Your task to perform on an android device: install app "Move to iOS" Image 0: 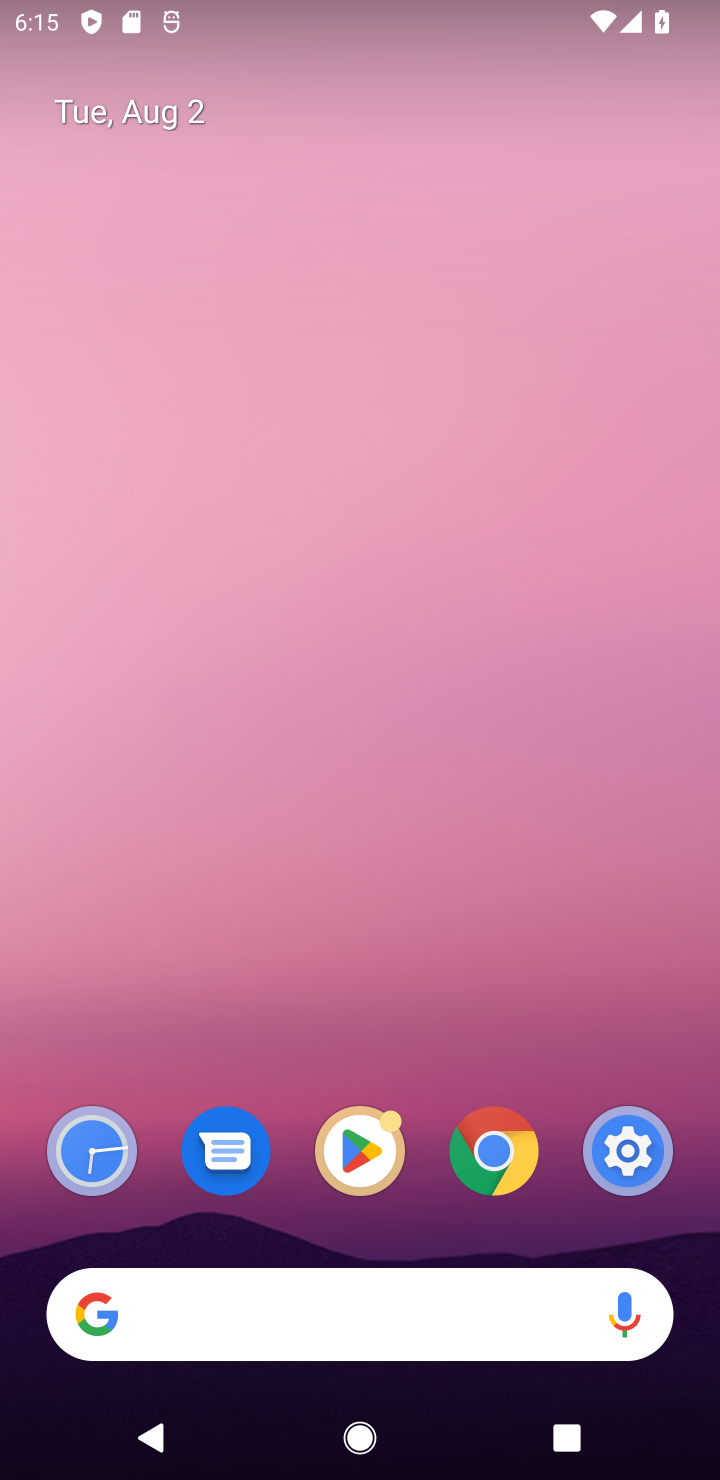
Step 0: click (320, 1284)
Your task to perform on an android device: install app "Move to iOS" Image 1: 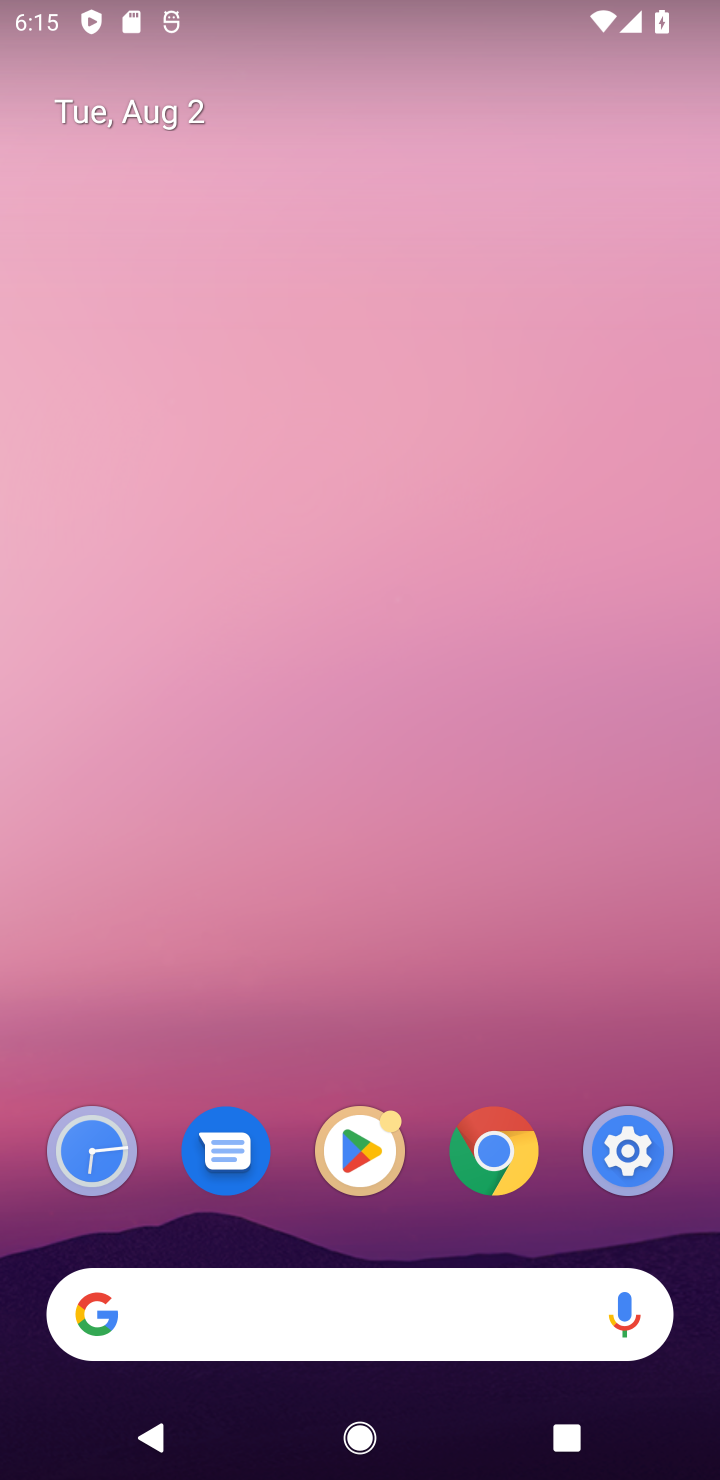
Step 1: click (343, 1145)
Your task to perform on an android device: install app "Move to iOS" Image 2: 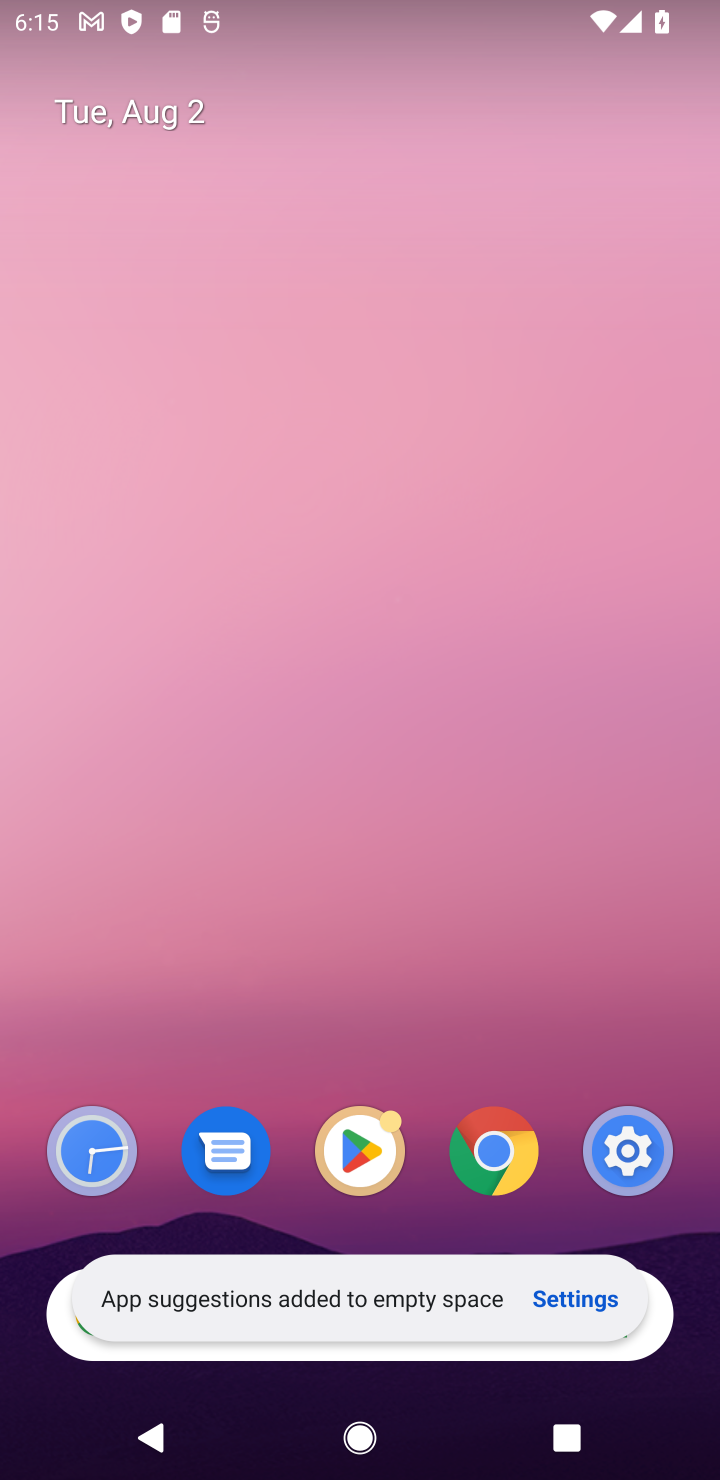
Step 2: click (385, 1156)
Your task to perform on an android device: install app "Move to iOS" Image 3: 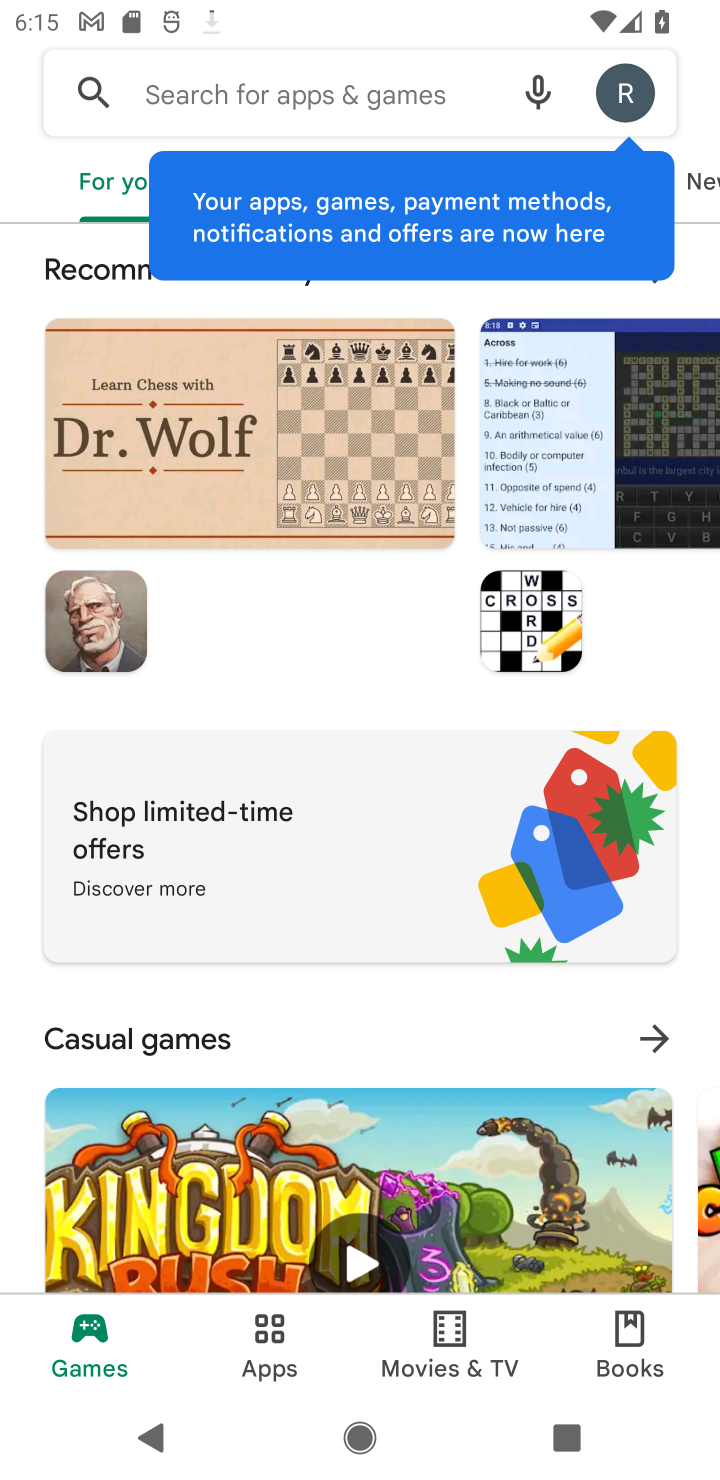
Step 3: click (299, 112)
Your task to perform on an android device: install app "Move to iOS" Image 4: 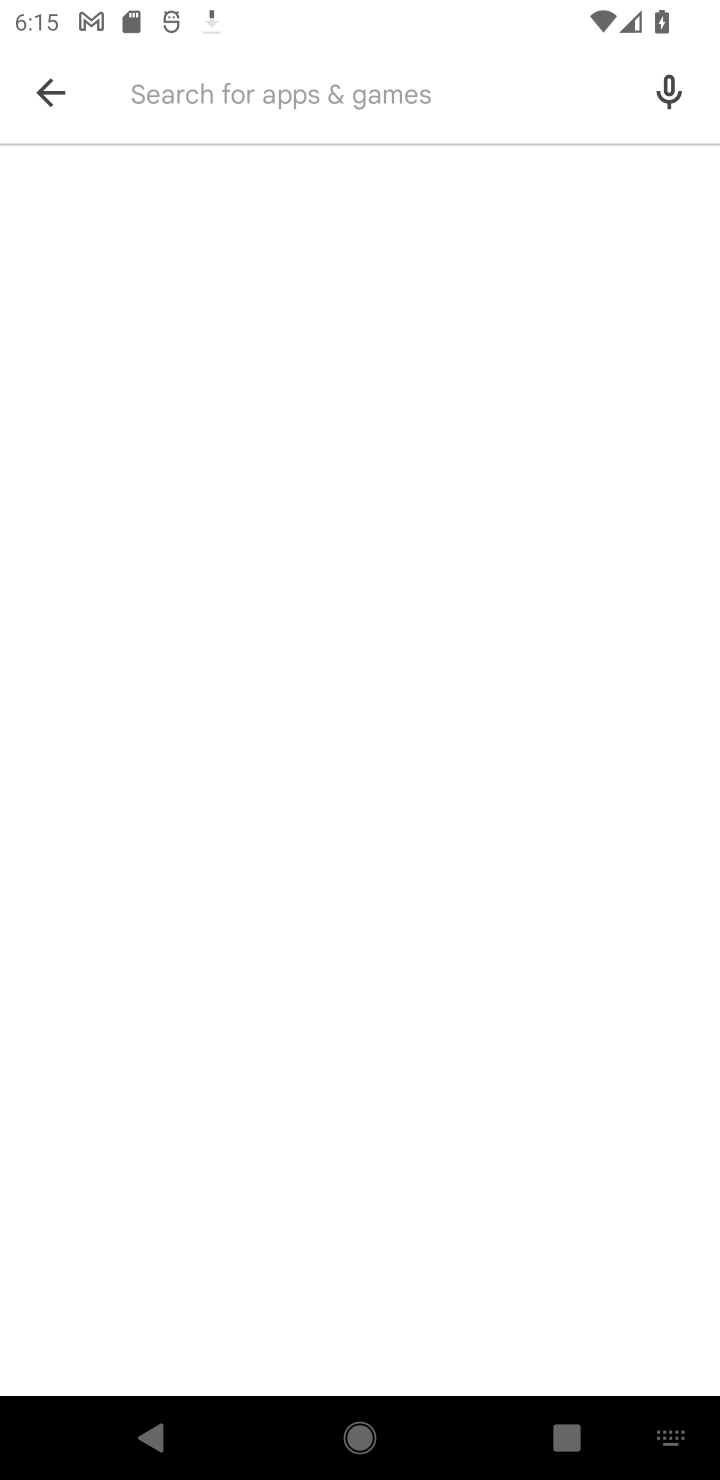
Step 4: type "Move to iOS"
Your task to perform on an android device: install app "Move to iOS" Image 5: 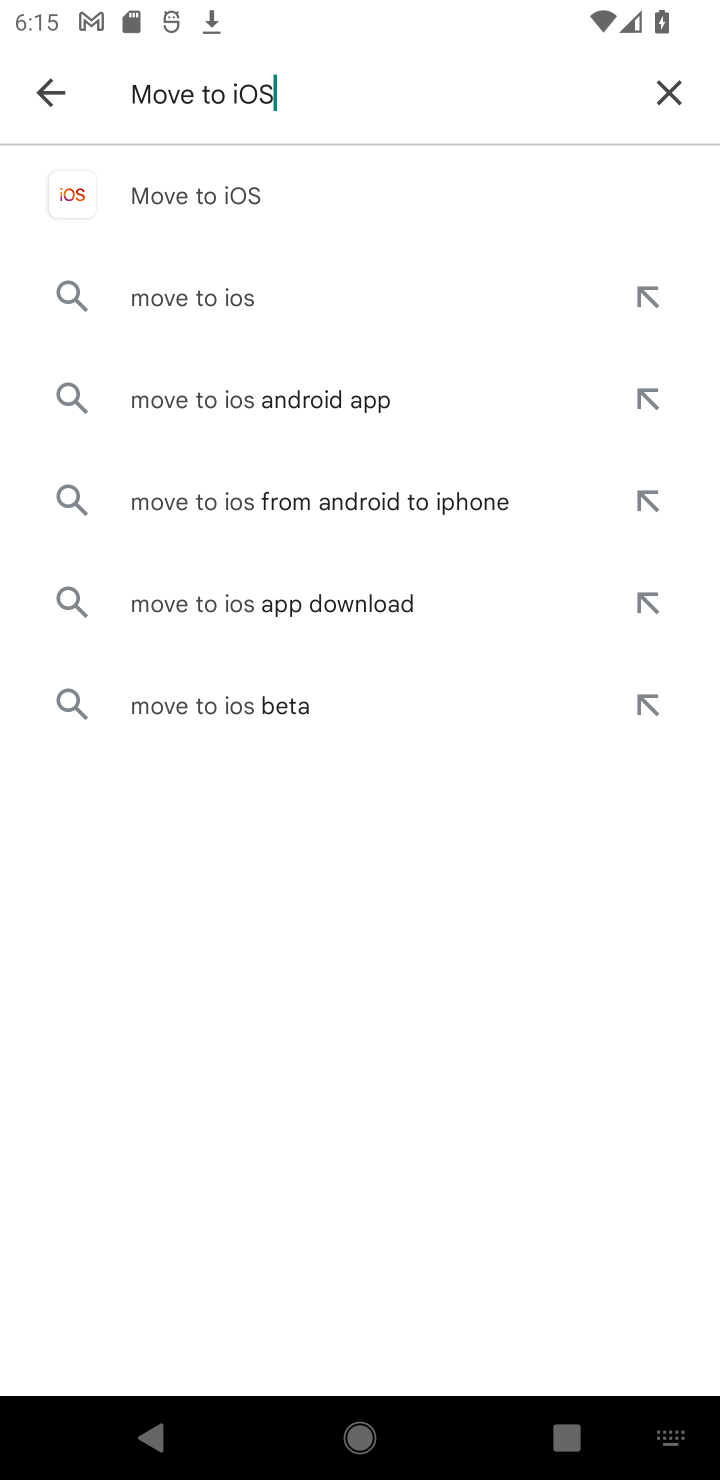
Step 5: click (163, 186)
Your task to perform on an android device: install app "Move to iOS" Image 6: 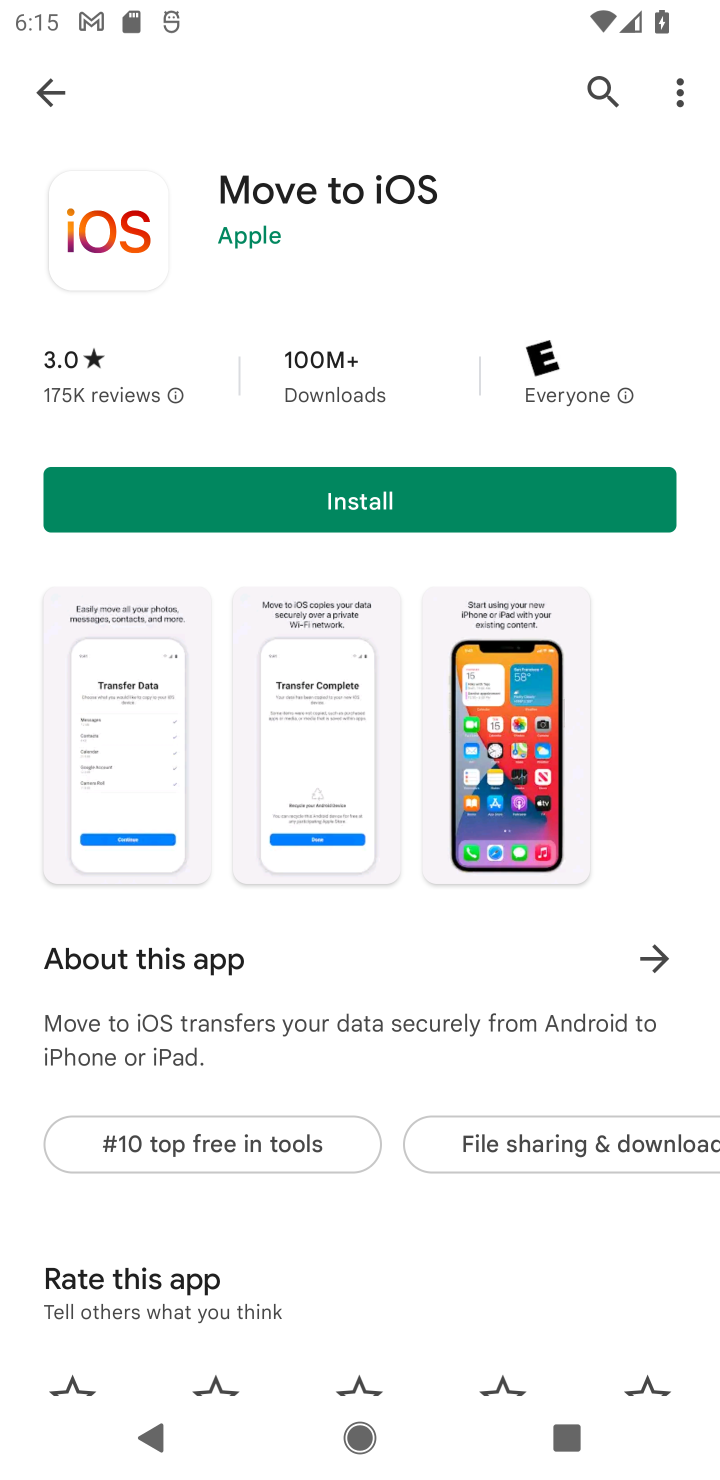
Step 6: click (430, 481)
Your task to perform on an android device: install app "Move to iOS" Image 7: 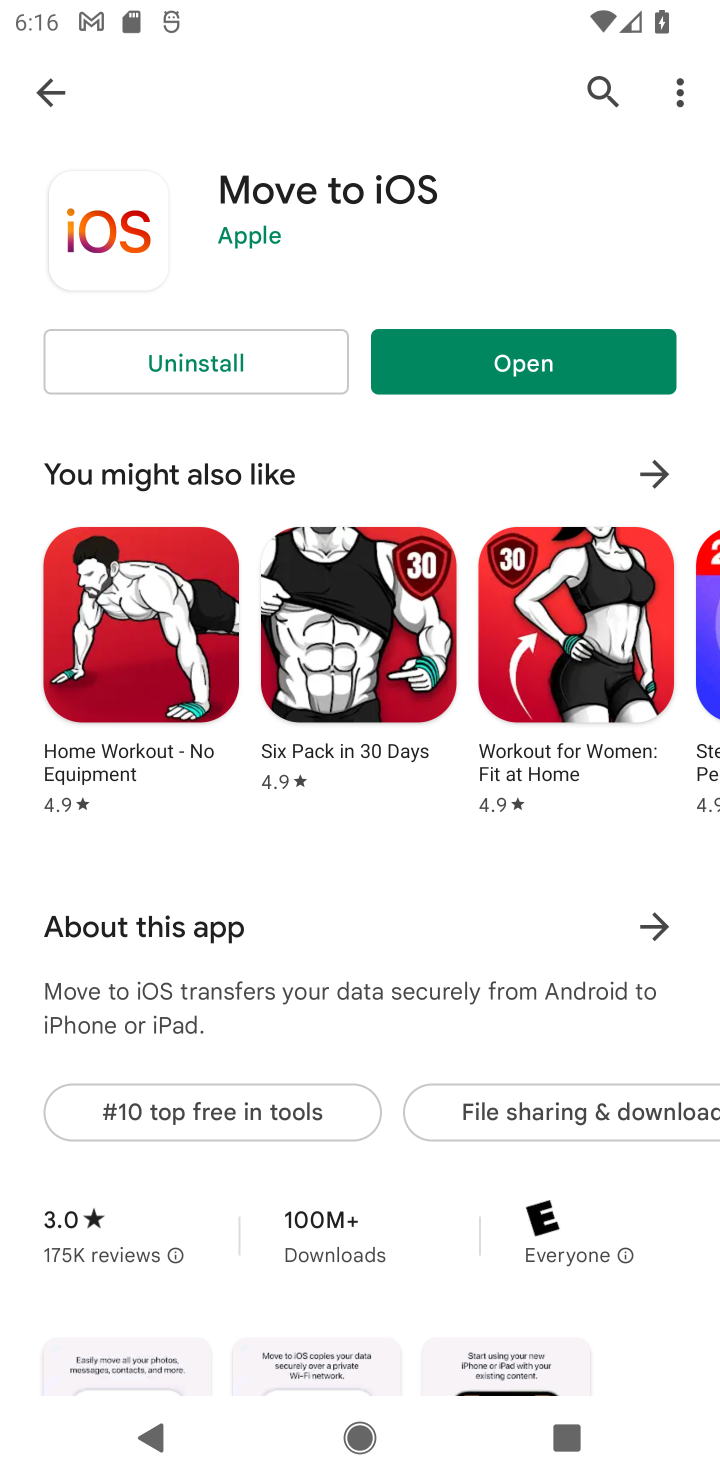
Step 7: task complete